Your task to perform on an android device: turn off airplane mode Image 0: 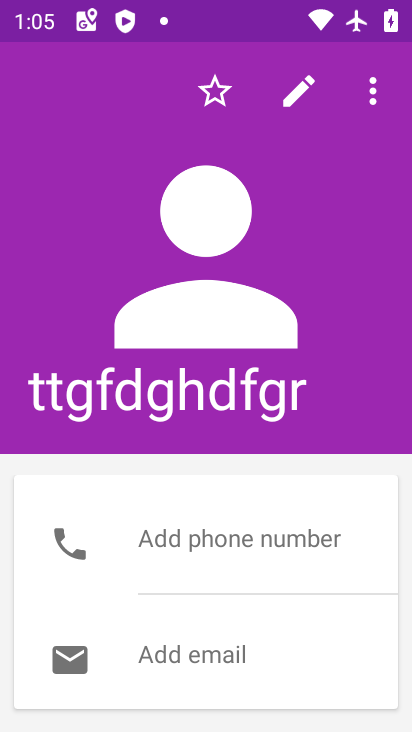
Step 0: press home button
Your task to perform on an android device: turn off airplane mode Image 1: 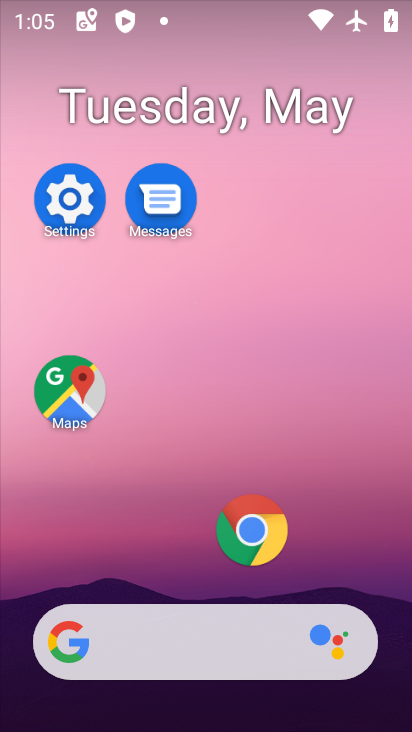
Step 1: drag from (185, 539) to (265, 161)
Your task to perform on an android device: turn off airplane mode Image 2: 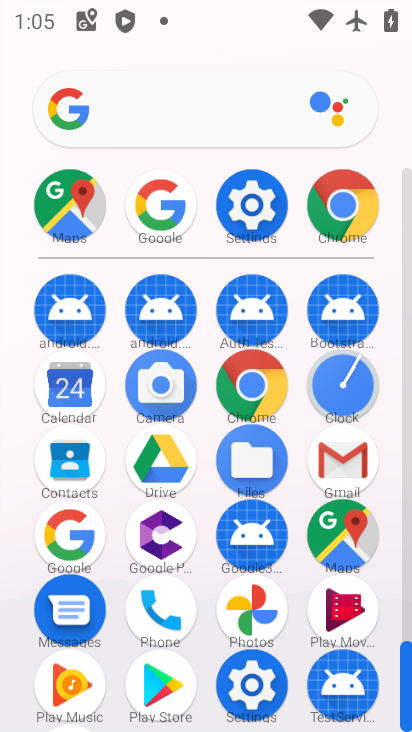
Step 2: click (264, 682)
Your task to perform on an android device: turn off airplane mode Image 3: 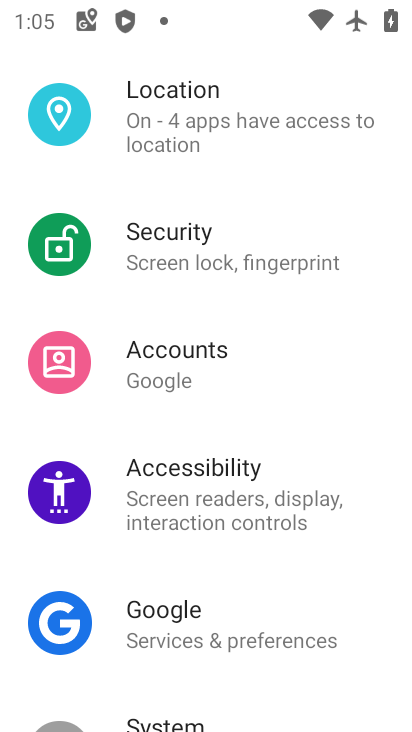
Step 3: drag from (210, 239) to (119, 620)
Your task to perform on an android device: turn off airplane mode Image 4: 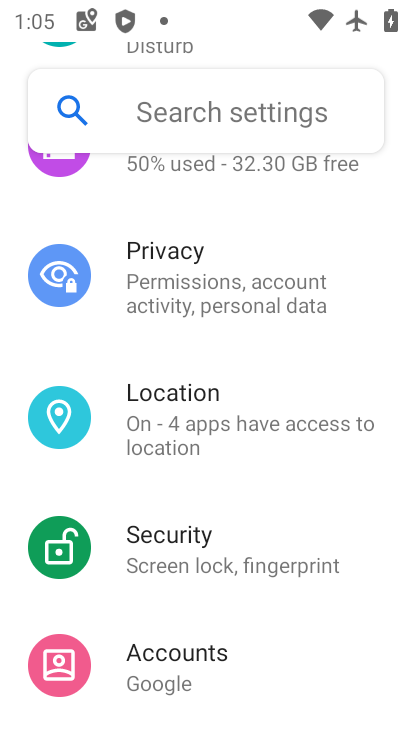
Step 4: drag from (235, 227) to (191, 617)
Your task to perform on an android device: turn off airplane mode Image 5: 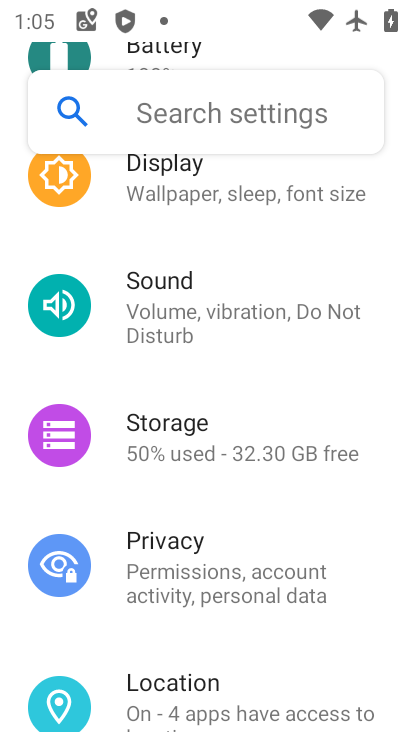
Step 5: drag from (231, 229) to (199, 598)
Your task to perform on an android device: turn off airplane mode Image 6: 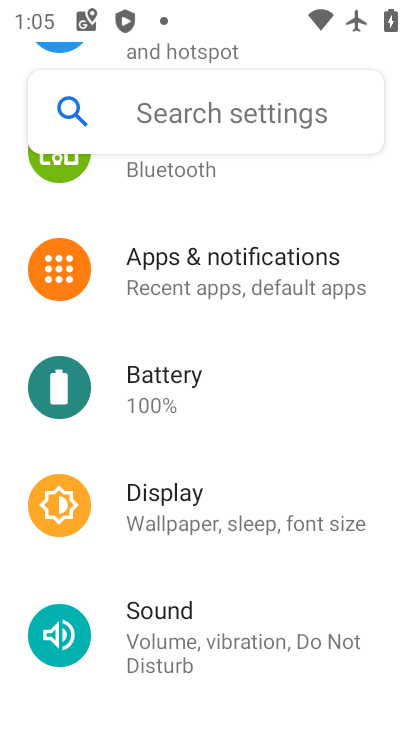
Step 6: drag from (235, 232) to (233, 626)
Your task to perform on an android device: turn off airplane mode Image 7: 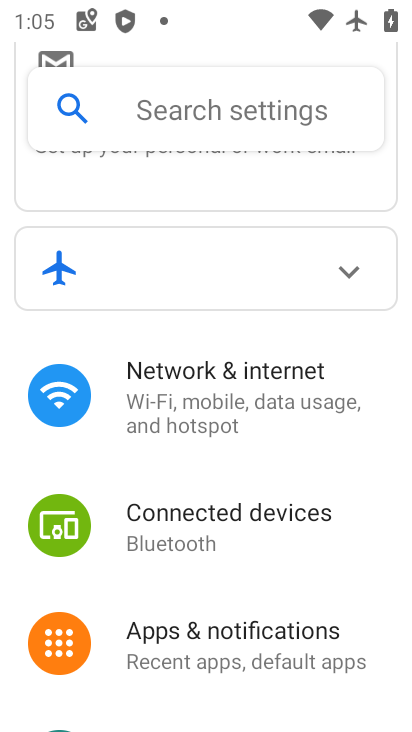
Step 7: click (212, 437)
Your task to perform on an android device: turn off airplane mode Image 8: 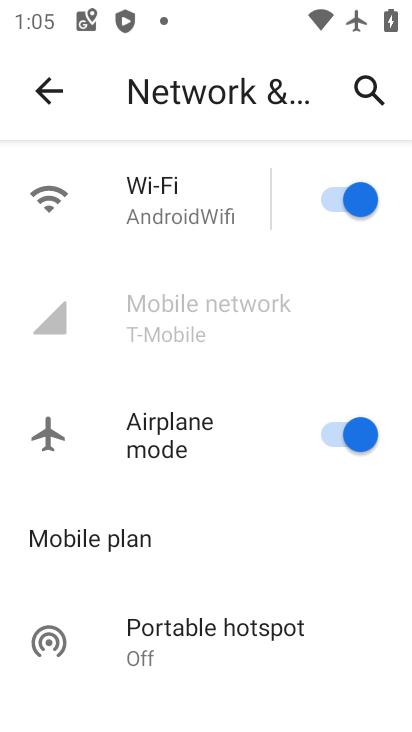
Step 8: click (347, 434)
Your task to perform on an android device: turn off airplane mode Image 9: 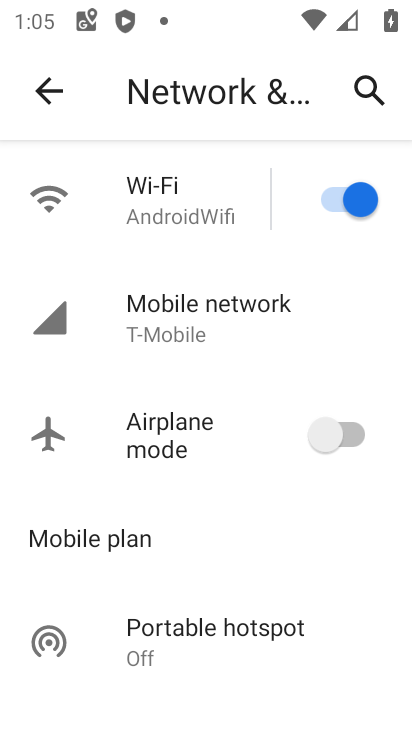
Step 9: task complete